Your task to perform on an android device: add a contact Image 0: 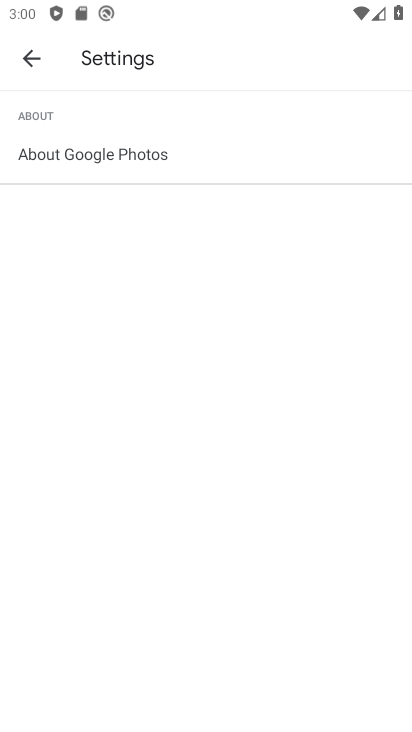
Step 0: press home button
Your task to perform on an android device: add a contact Image 1: 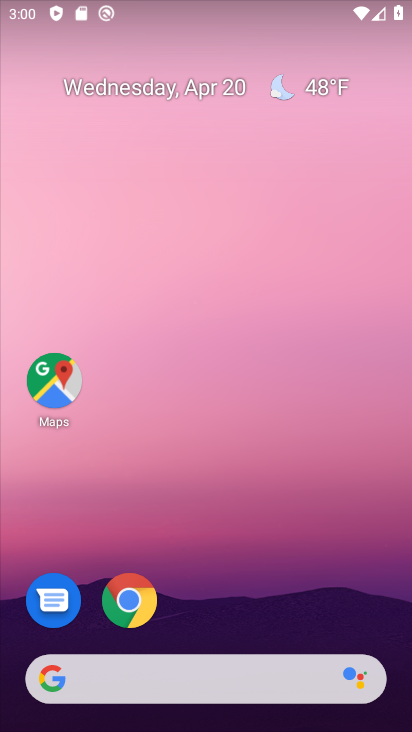
Step 1: drag from (373, 199) to (389, 101)
Your task to perform on an android device: add a contact Image 2: 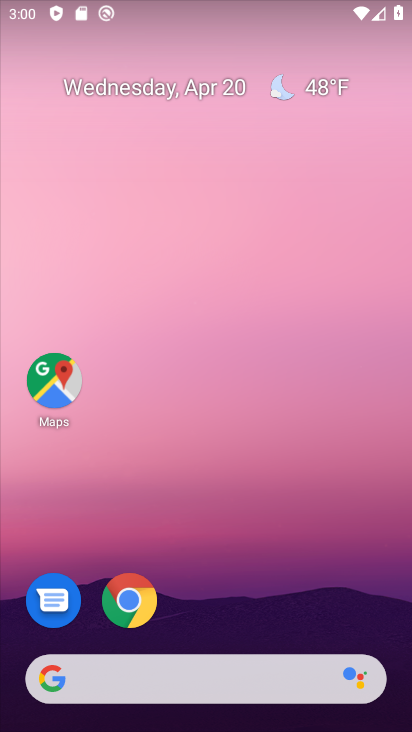
Step 2: drag from (301, 542) to (334, 73)
Your task to perform on an android device: add a contact Image 3: 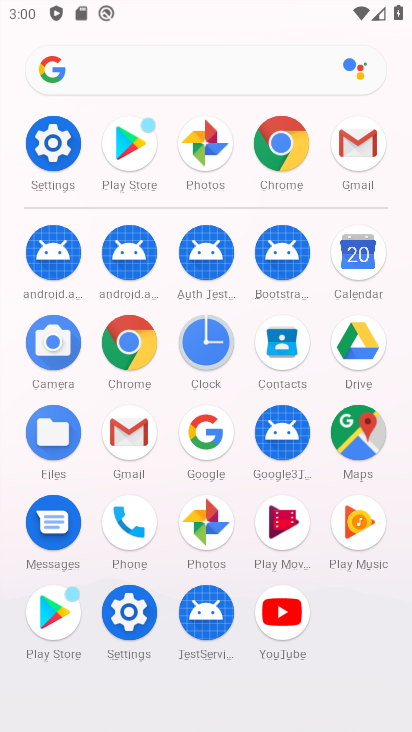
Step 3: click (281, 350)
Your task to perform on an android device: add a contact Image 4: 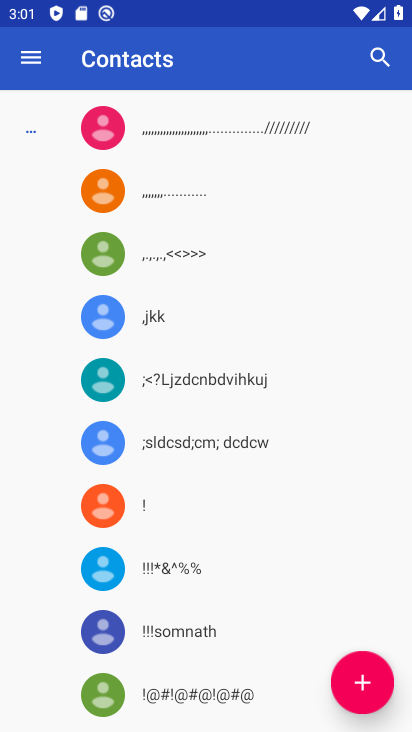
Step 4: task complete